Your task to perform on an android device: turn on the 12-hour format for clock Image 0: 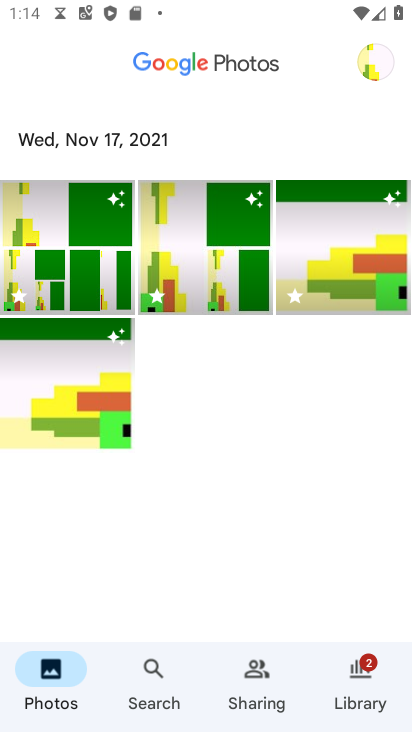
Step 0: press home button
Your task to perform on an android device: turn on the 12-hour format for clock Image 1: 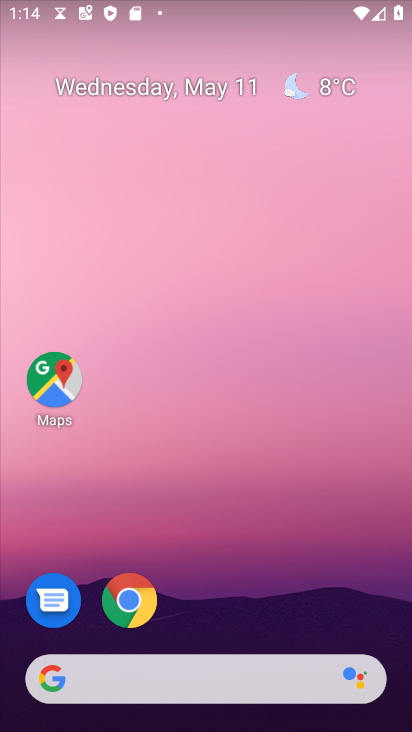
Step 1: drag from (266, 582) to (223, 138)
Your task to perform on an android device: turn on the 12-hour format for clock Image 2: 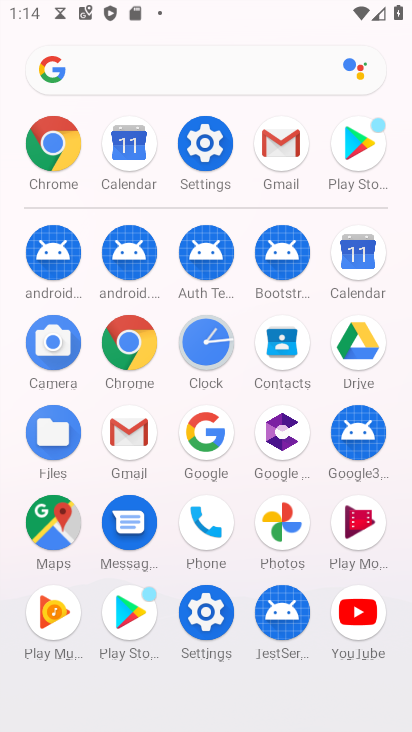
Step 2: click (211, 348)
Your task to perform on an android device: turn on the 12-hour format for clock Image 3: 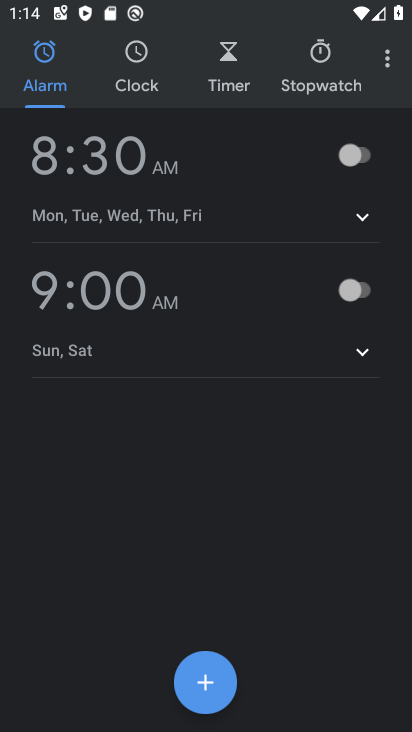
Step 3: click (381, 59)
Your task to perform on an android device: turn on the 12-hour format for clock Image 4: 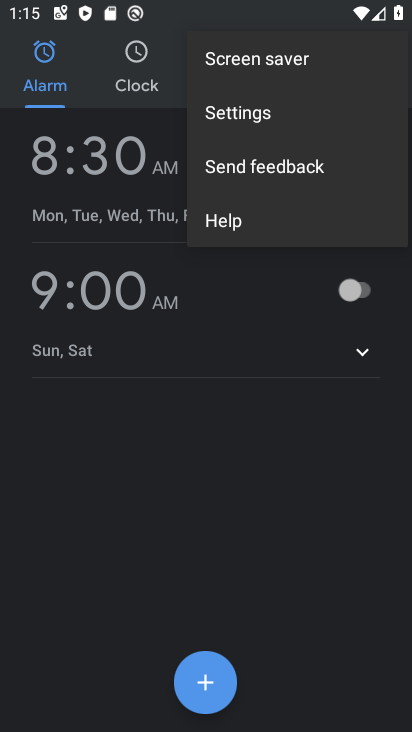
Step 4: click (250, 125)
Your task to perform on an android device: turn on the 12-hour format for clock Image 5: 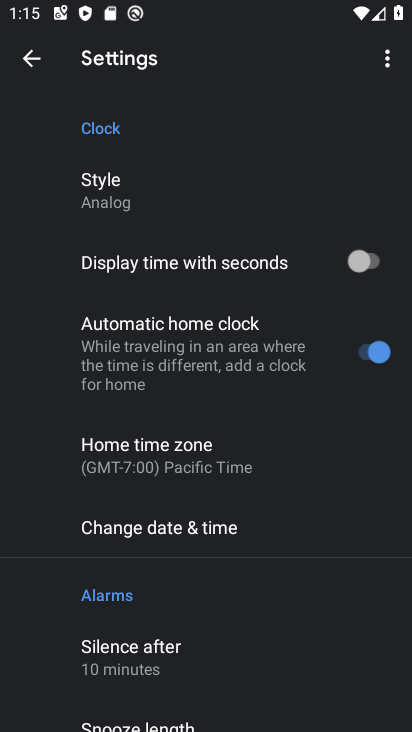
Step 5: click (231, 513)
Your task to perform on an android device: turn on the 12-hour format for clock Image 6: 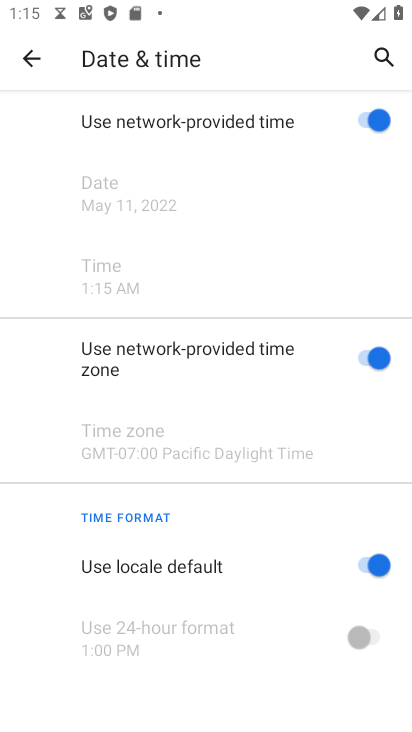
Step 6: task complete